Your task to perform on an android device: star an email in the gmail app Image 0: 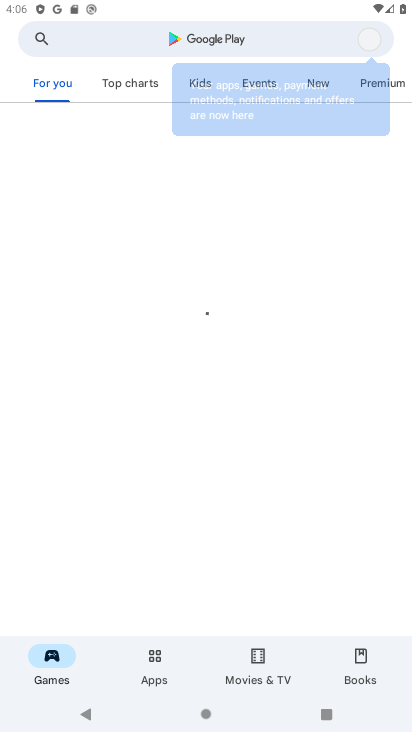
Step 0: press home button
Your task to perform on an android device: star an email in the gmail app Image 1: 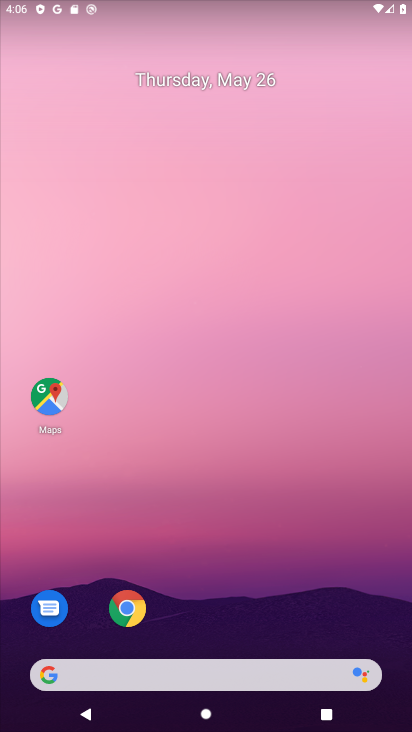
Step 1: drag from (227, 688) to (317, 158)
Your task to perform on an android device: star an email in the gmail app Image 2: 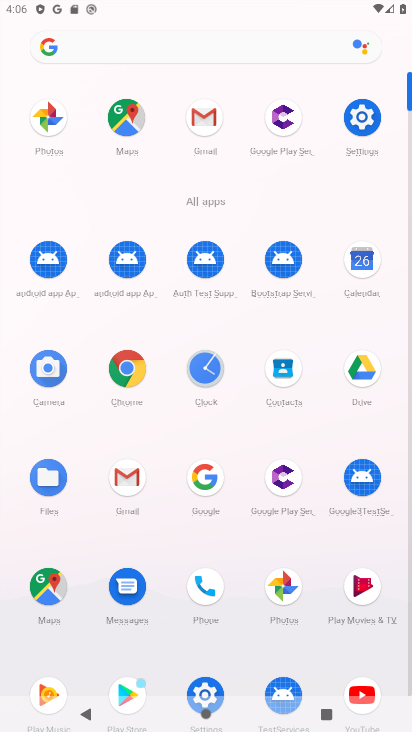
Step 2: click (219, 134)
Your task to perform on an android device: star an email in the gmail app Image 3: 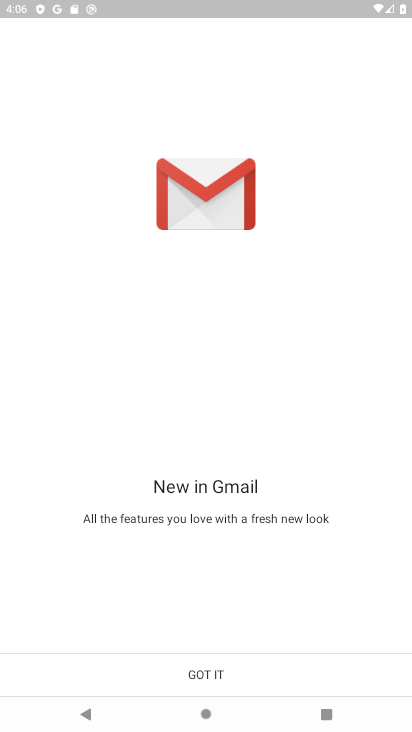
Step 3: click (224, 681)
Your task to perform on an android device: star an email in the gmail app Image 4: 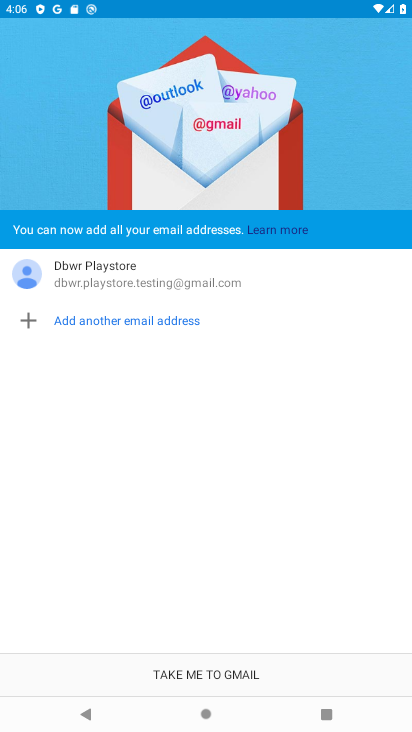
Step 4: click (239, 655)
Your task to perform on an android device: star an email in the gmail app Image 5: 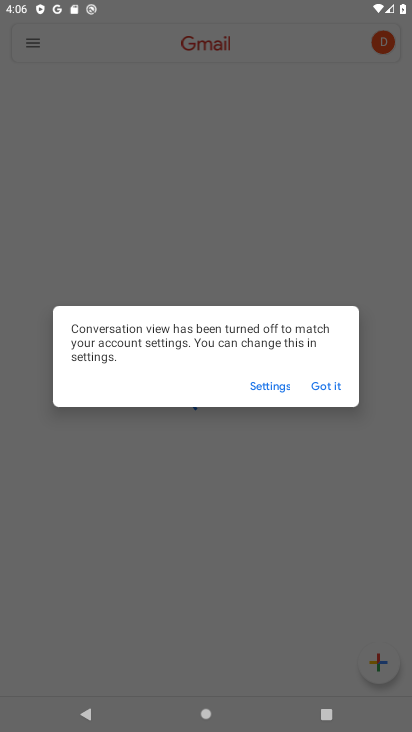
Step 5: click (324, 388)
Your task to perform on an android device: star an email in the gmail app Image 6: 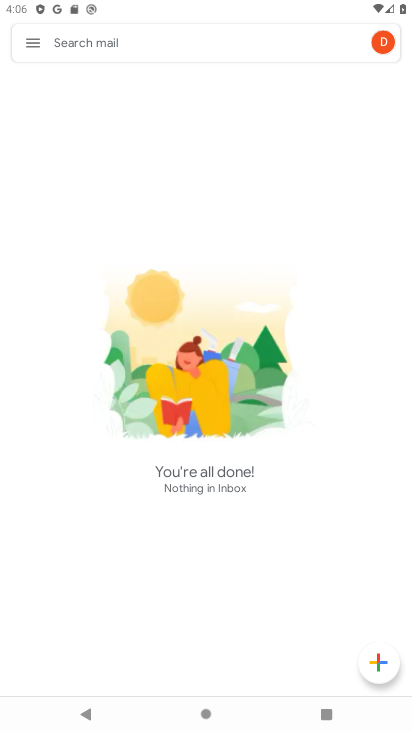
Step 6: click (37, 49)
Your task to perform on an android device: star an email in the gmail app Image 7: 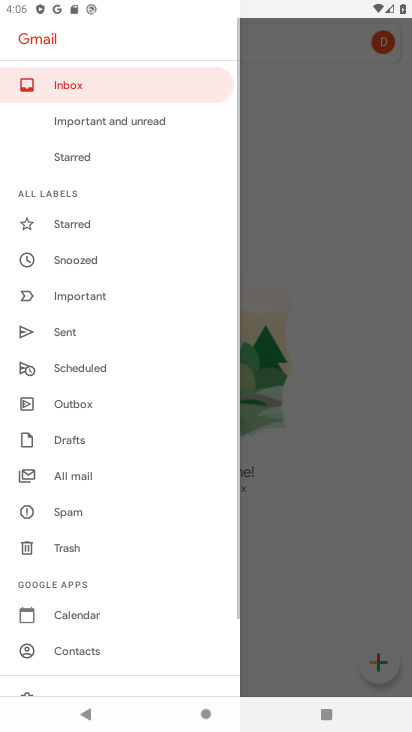
Step 7: click (56, 295)
Your task to perform on an android device: star an email in the gmail app Image 8: 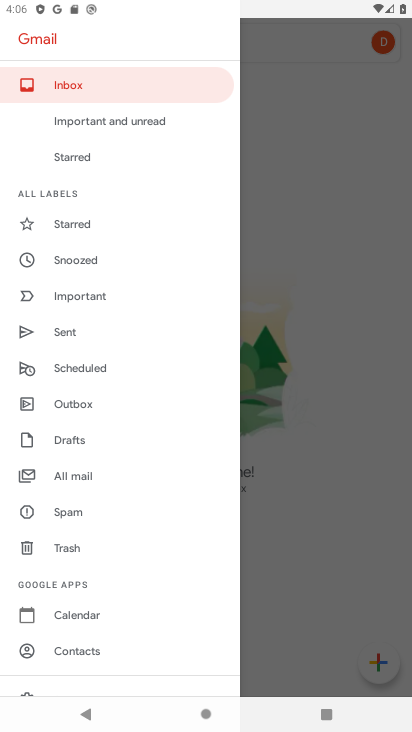
Step 8: drag from (92, 418) to (147, 188)
Your task to perform on an android device: star an email in the gmail app Image 9: 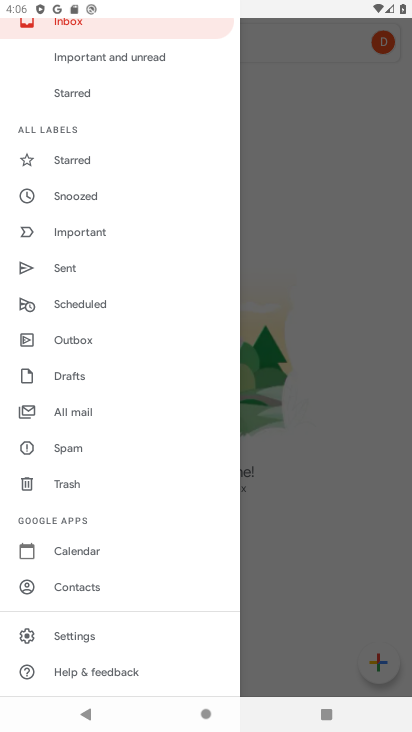
Step 9: click (93, 88)
Your task to perform on an android device: star an email in the gmail app Image 10: 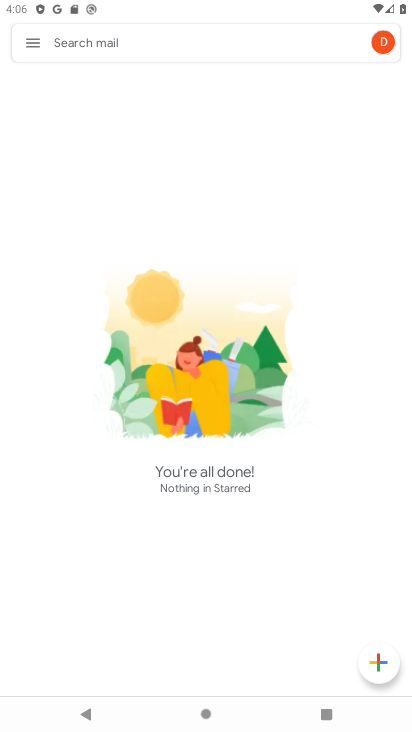
Step 10: task complete